Your task to perform on an android device: Open the Play Movies app and select the watchlist tab. Image 0: 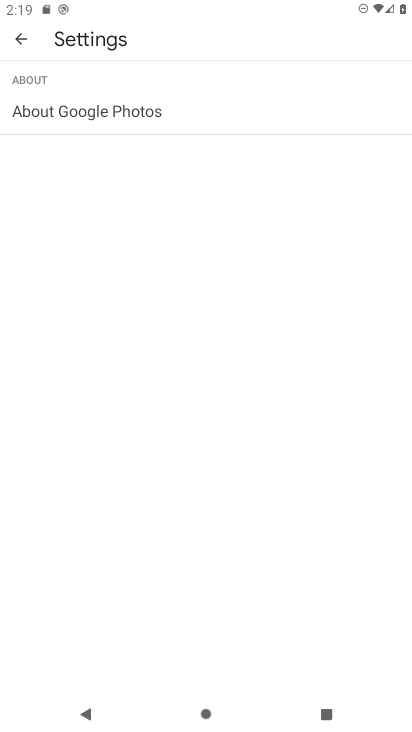
Step 0: press home button
Your task to perform on an android device: Open the Play Movies app and select the watchlist tab. Image 1: 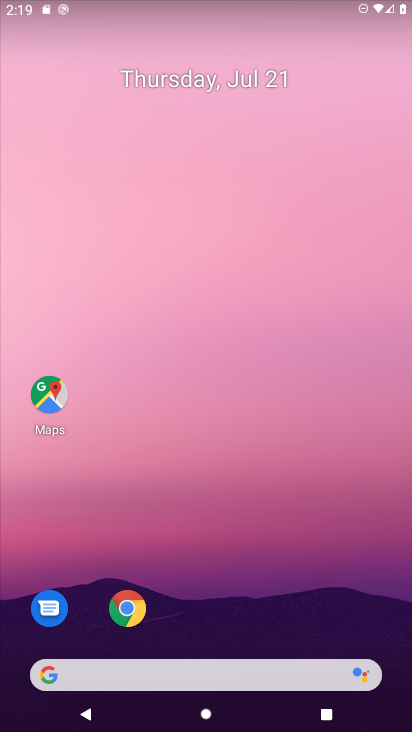
Step 1: drag from (248, 298) to (248, 151)
Your task to perform on an android device: Open the Play Movies app and select the watchlist tab. Image 2: 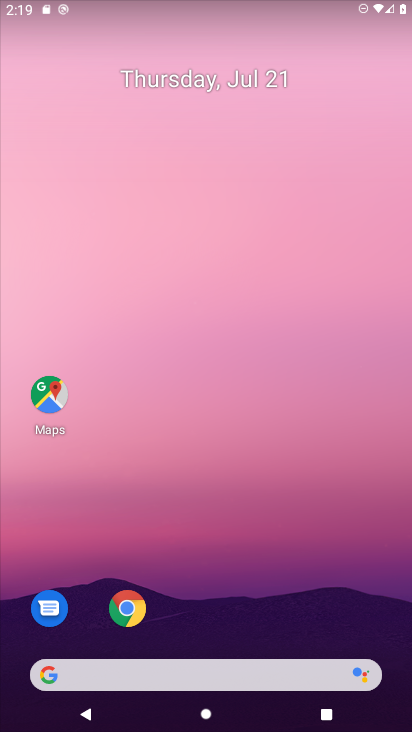
Step 2: drag from (219, 623) to (219, 64)
Your task to perform on an android device: Open the Play Movies app and select the watchlist tab. Image 3: 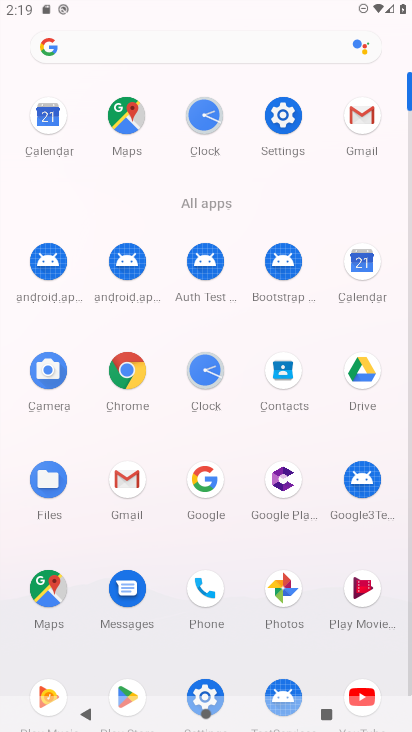
Step 3: drag from (323, 542) to (298, 230)
Your task to perform on an android device: Open the Play Movies app and select the watchlist tab. Image 4: 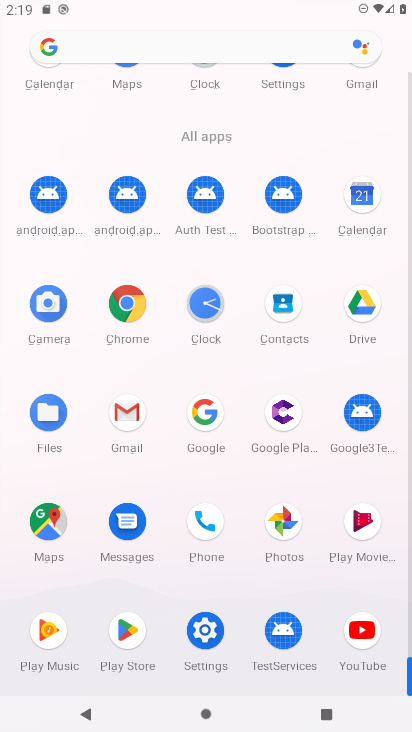
Step 4: click (354, 529)
Your task to perform on an android device: Open the Play Movies app and select the watchlist tab. Image 5: 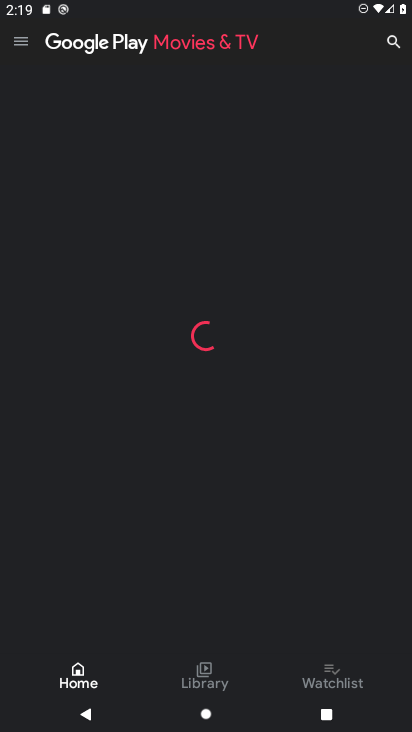
Step 5: click (333, 675)
Your task to perform on an android device: Open the Play Movies app and select the watchlist tab. Image 6: 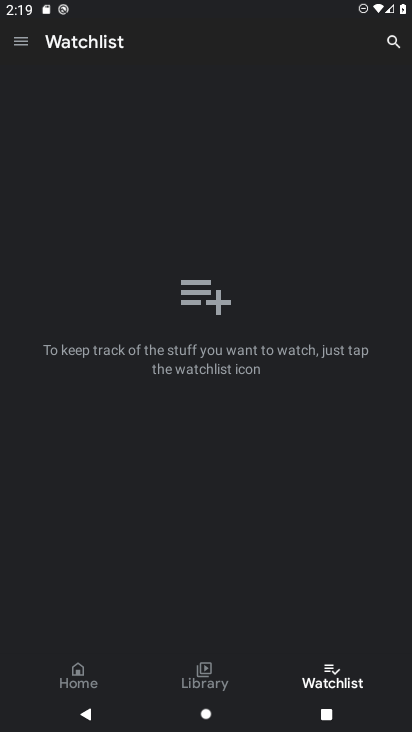
Step 6: task complete